Your task to perform on an android device: Search for apple airpods pro on bestbuy, select the first entry, and add it to the cart. Image 0: 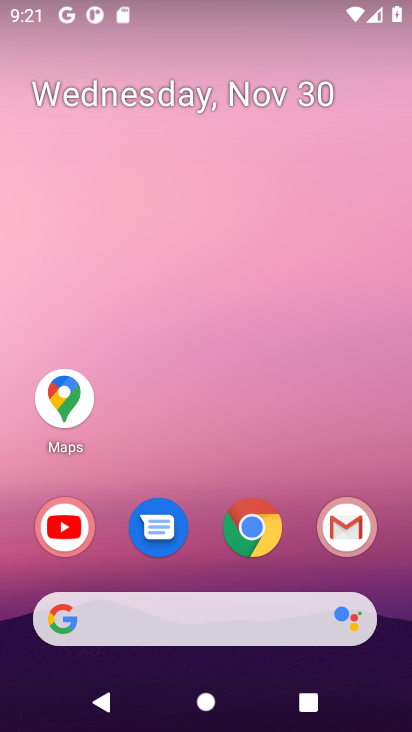
Step 0: click (257, 526)
Your task to perform on an android device: Search for apple airpods pro on bestbuy, select the first entry, and add it to the cart. Image 1: 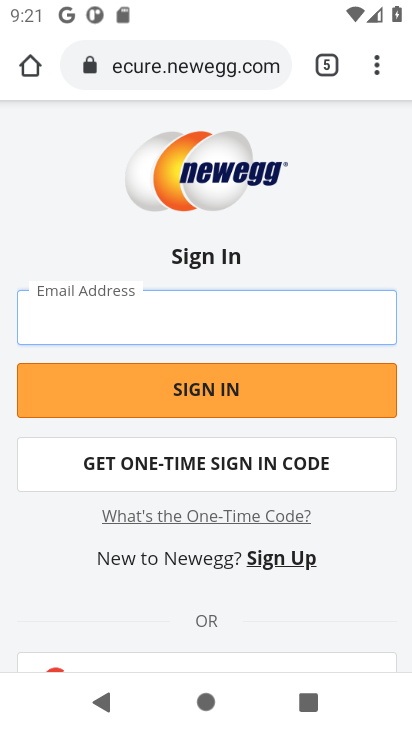
Step 1: click (218, 63)
Your task to perform on an android device: Search for apple airpods pro on bestbuy, select the first entry, and add it to the cart. Image 2: 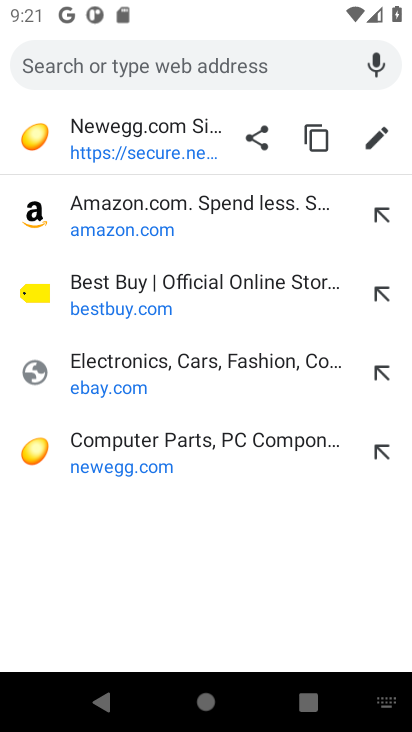
Step 2: click (142, 281)
Your task to perform on an android device: Search for apple airpods pro on bestbuy, select the first entry, and add it to the cart. Image 3: 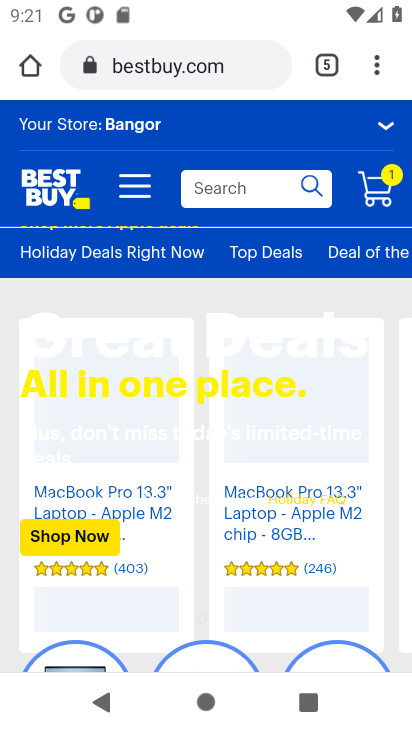
Step 3: click (263, 191)
Your task to perform on an android device: Search for apple airpods pro on bestbuy, select the first entry, and add it to the cart. Image 4: 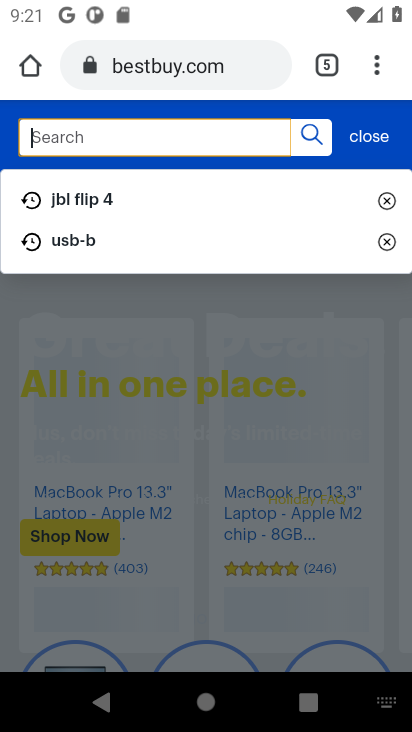
Step 4: type "apple airpods pro"
Your task to perform on an android device: Search for apple airpods pro on bestbuy, select the first entry, and add it to the cart. Image 5: 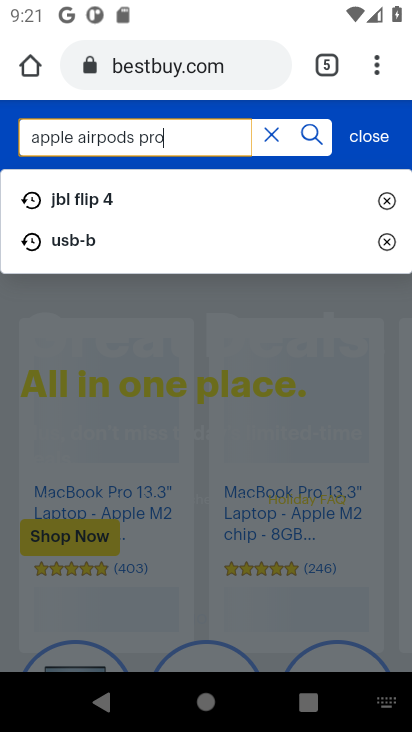
Step 5: press enter
Your task to perform on an android device: Search for apple airpods pro on bestbuy, select the first entry, and add it to the cart. Image 6: 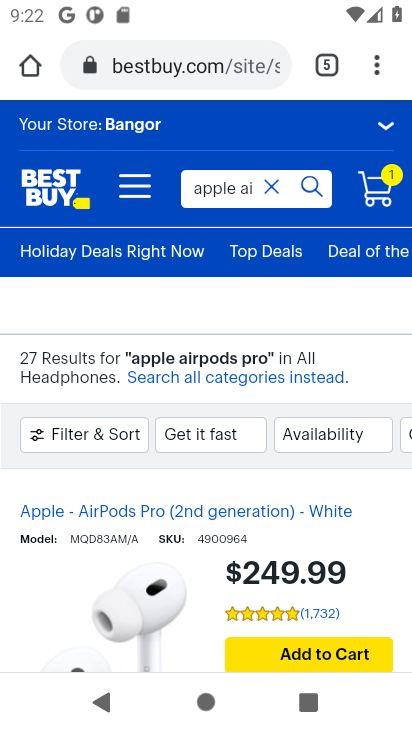
Step 6: click (127, 600)
Your task to perform on an android device: Search for apple airpods pro on bestbuy, select the first entry, and add it to the cart. Image 7: 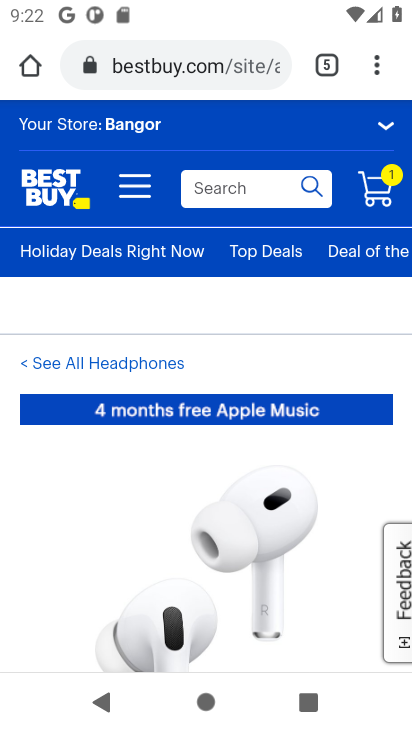
Step 7: drag from (321, 577) to (370, 38)
Your task to perform on an android device: Search for apple airpods pro on bestbuy, select the first entry, and add it to the cart. Image 8: 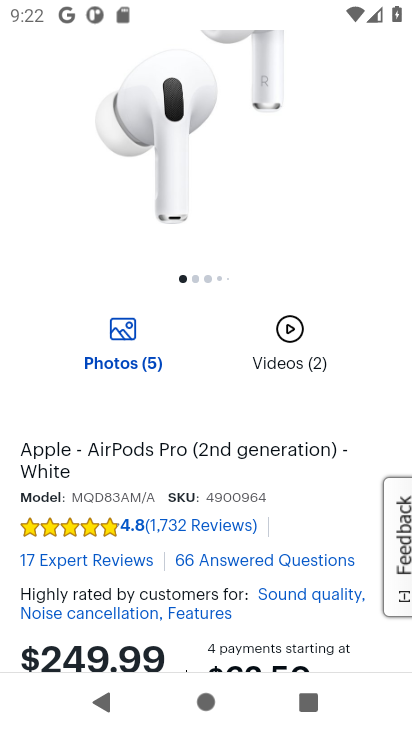
Step 8: drag from (350, 613) to (309, 82)
Your task to perform on an android device: Search for apple airpods pro on bestbuy, select the first entry, and add it to the cart. Image 9: 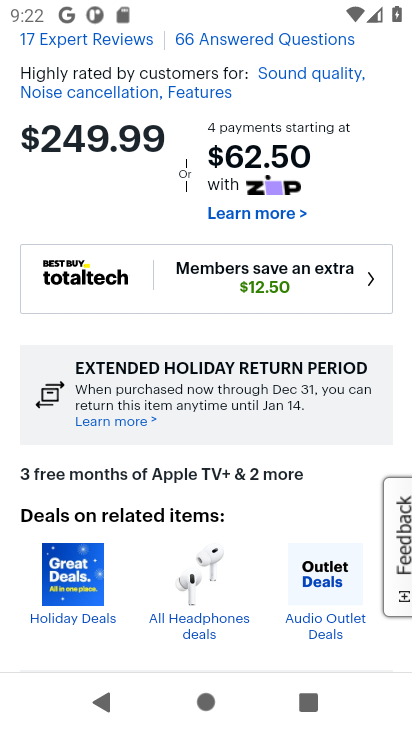
Step 9: drag from (293, 523) to (330, 17)
Your task to perform on an android device: Search for apple airpods pro on bestbuy, select the first entry, and add it to the cart. Image 10: 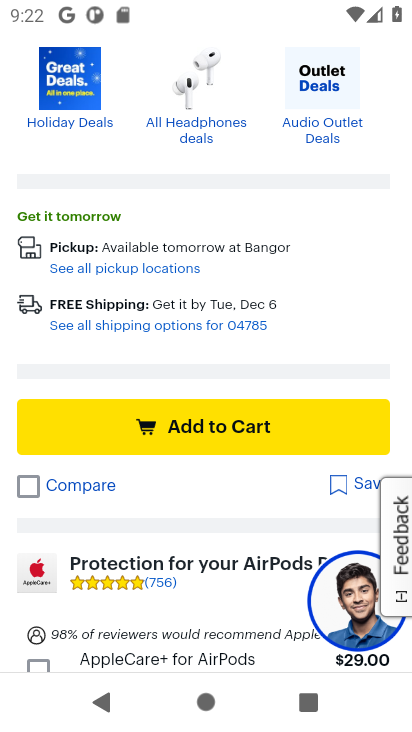
Step 10: click (219, 419)
Your task to perform on an android device: Search for apple airpods pro on bestbuy, select the first entry, and add it to the cart. Image 11: 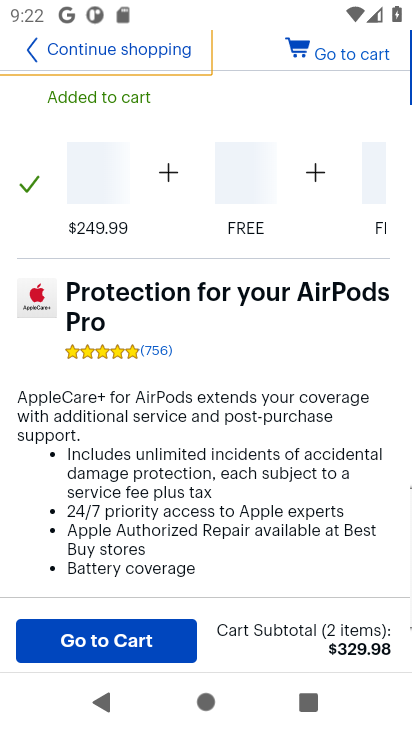
Step 11: task complete